Your task to perform on an android device: Open privacy settings Image 0: 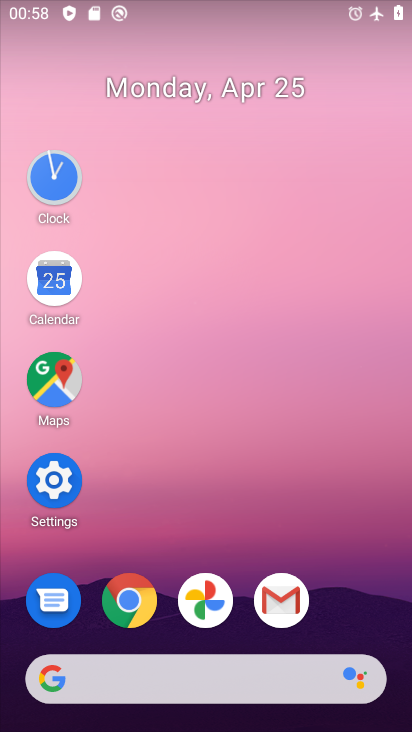
Step 0: click (48, 487)
Your task to perform on an android device: Open privacy settings Image 1: 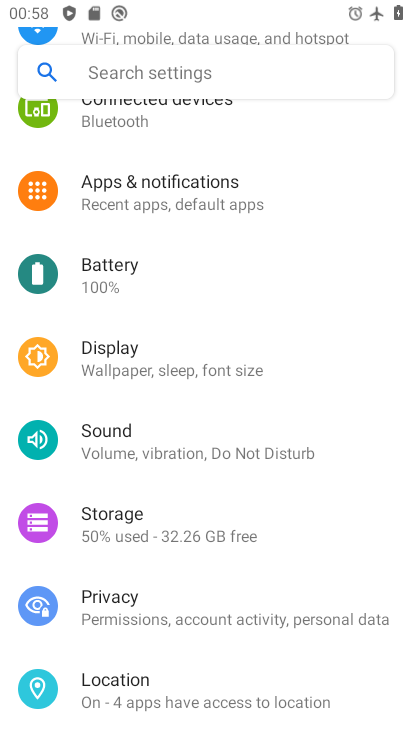
Step 1: click (108, 598)
Your task to perform on an android device: Open privacy settings Image 2: 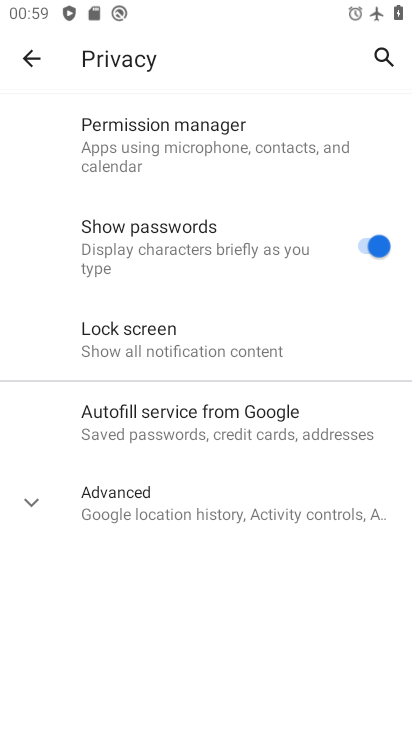
Step 2: task complete